Your task to perform on an android device: turn pop-ups off in chrome Image 0: 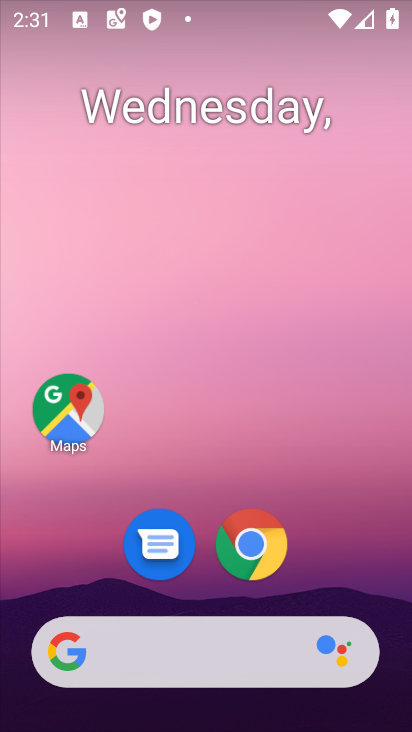
Step 0: click (247, 542)
Your task to perform on an android device: turn pop-ups off in chrome Image 1: 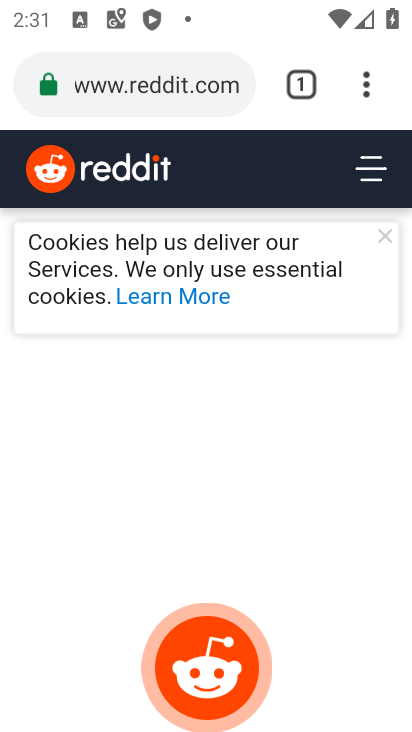
Step 1: click (366, 97)
Your task to perform on an android device: turn pop-ups off in chrome Image 2: 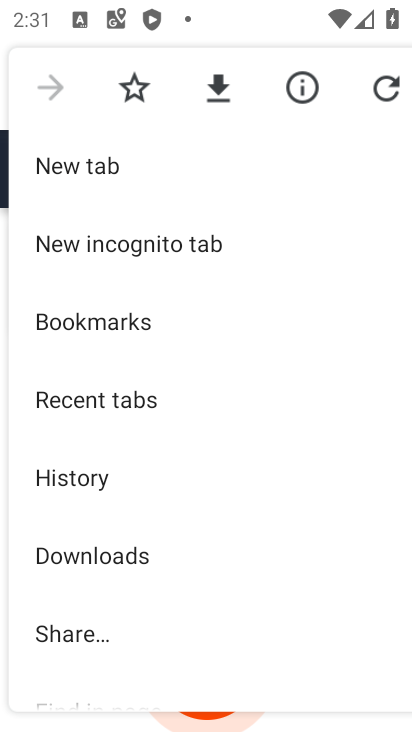
Step 2: drag from (185, 580) to (253, 230)
Your task to perform on an android device: turn pop-ups off in chrome Image 3: 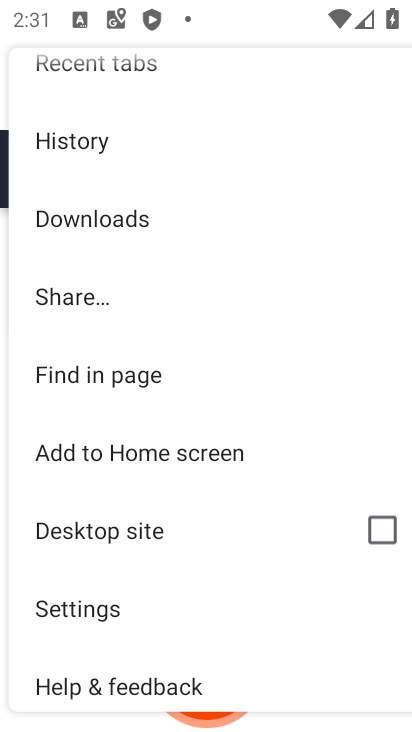
Step 3: click (99, 616)
Your task to perform on an android device: turn pop-ups off in chrome Image 4: 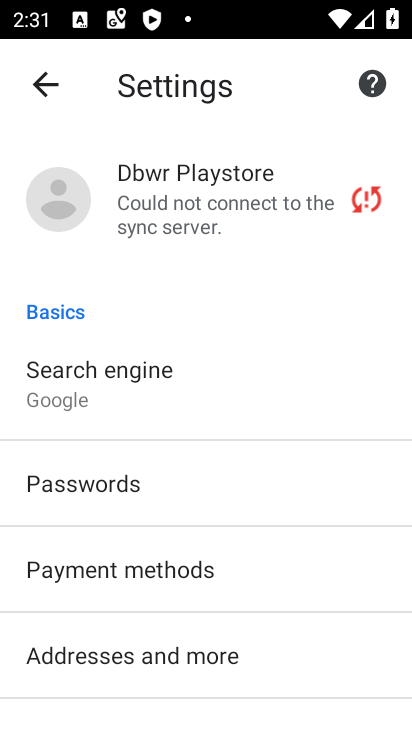
Step 4: drag from (319, 655) to (283, 259)
Your task to perform on an android device: turn pop-ups off in chrome Image 5: 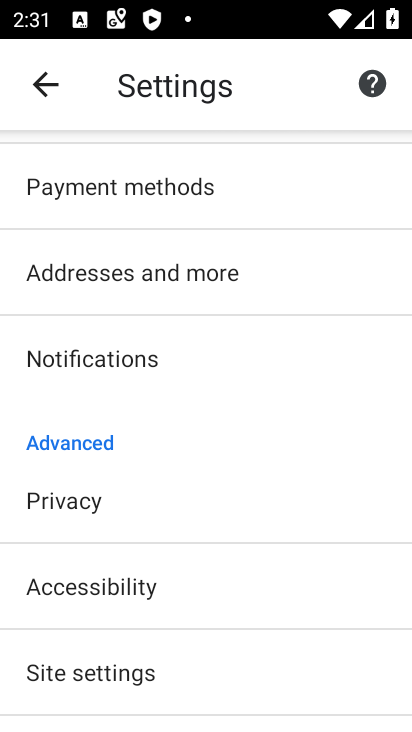
Step 5: drag from (228, 609) to (288, 324)
Your task to perform on an android device: turn pop-ups off in chrome Image 6: 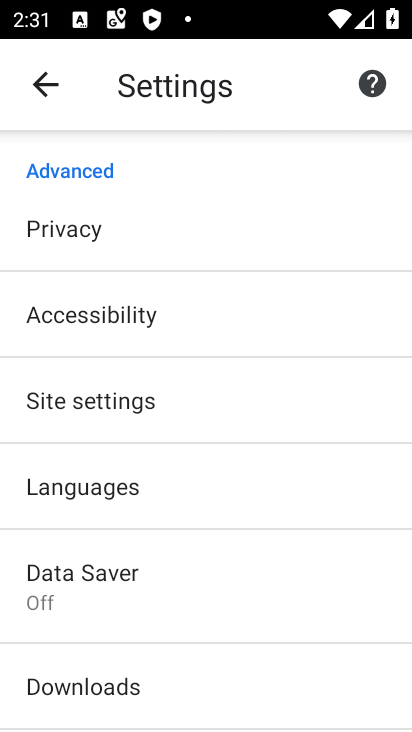
Step 6: click (94, 406)
Your task to perform on an android device: turn pop-ups off in chrome Image 7: 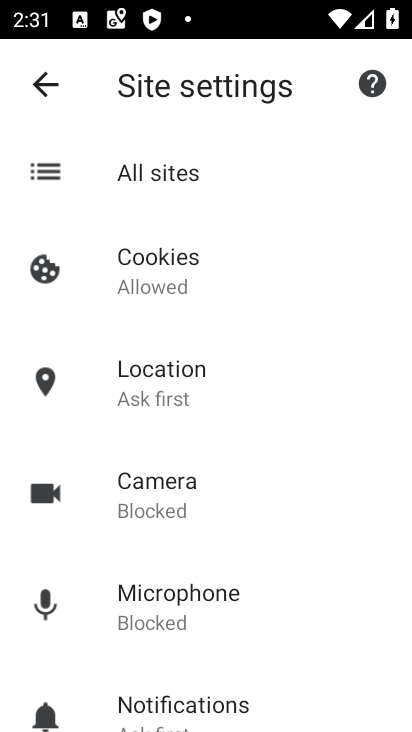
Step 7: drag from (270, 592) to (300, 301)
Your task to perform on an android device: turn pop-ups off in chrome Image 8: 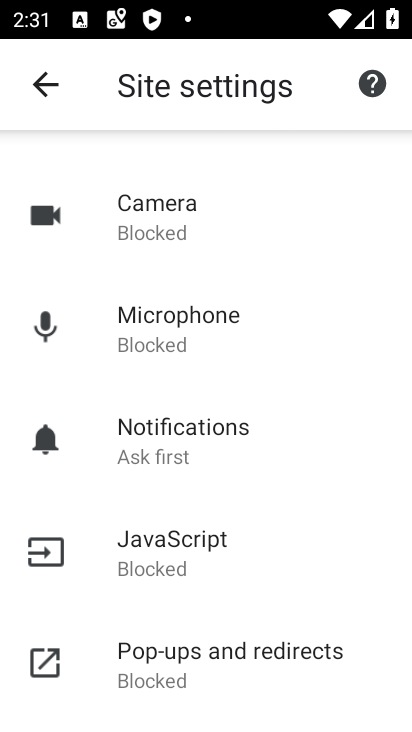
Step 8: click (171, 672)
Your task to perform on an android device: turn pop-ups off in chrome Image 9: 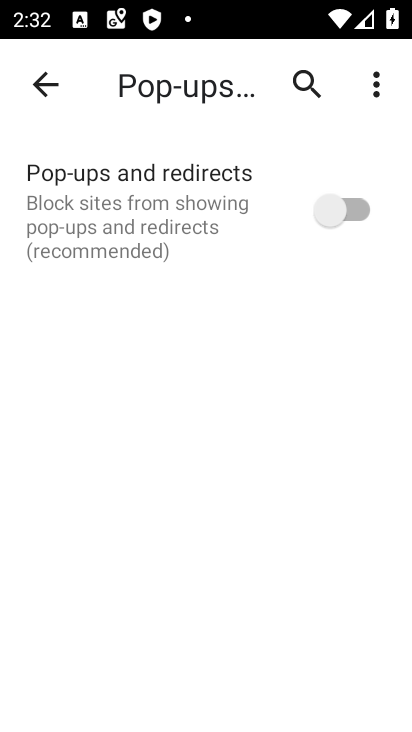
Step 9: task complete